Your task to perform on an android device: What's the price of the Vizio TV? Image 0: 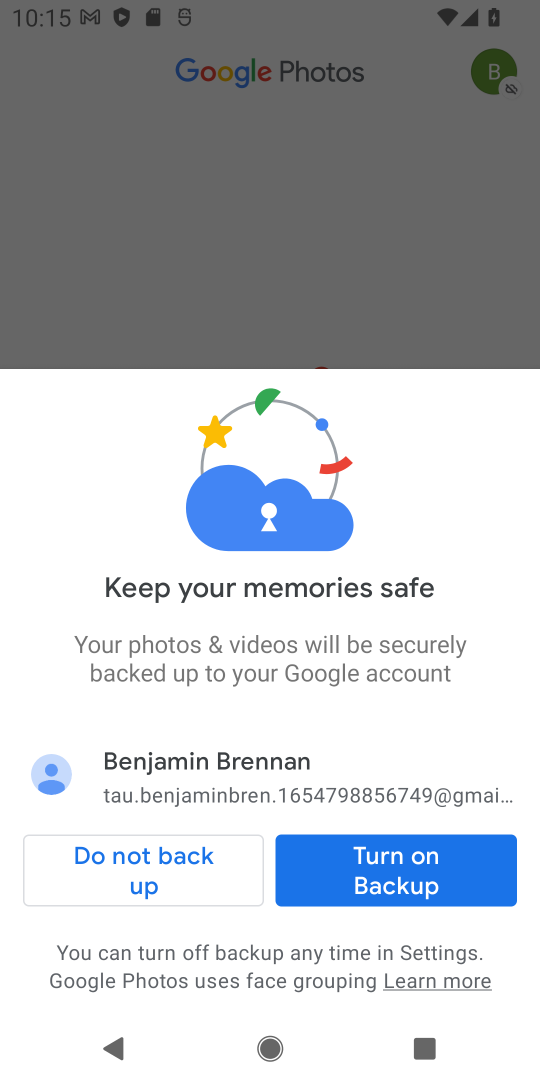
Step 0: press home button
Your task to perform on an android device: What's the price of the Vizio TV? Image 1: 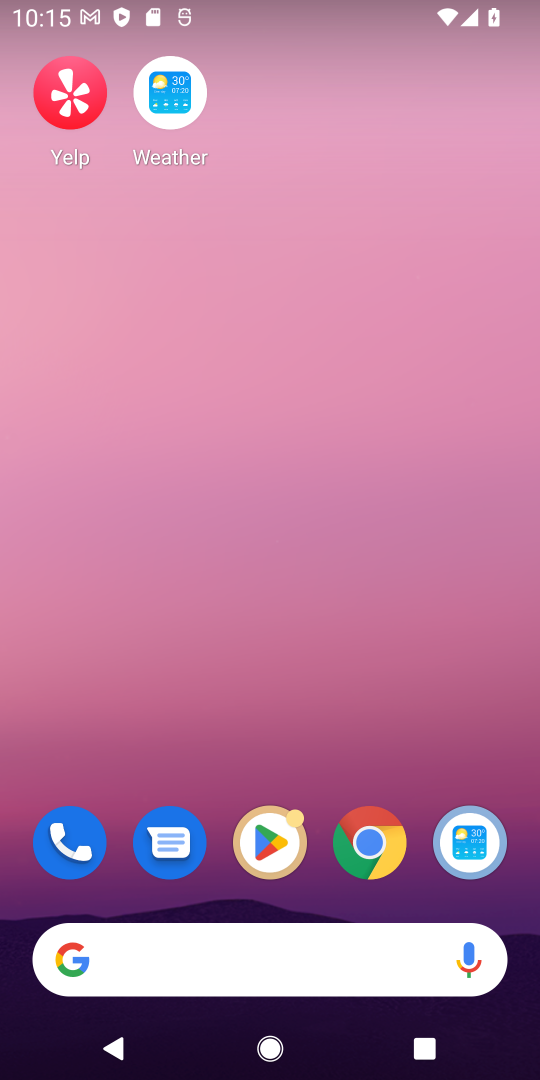
Step 1: click (378, 839)
Your task to perform on an android device: What's the price of the Vizio TV? Image 2: 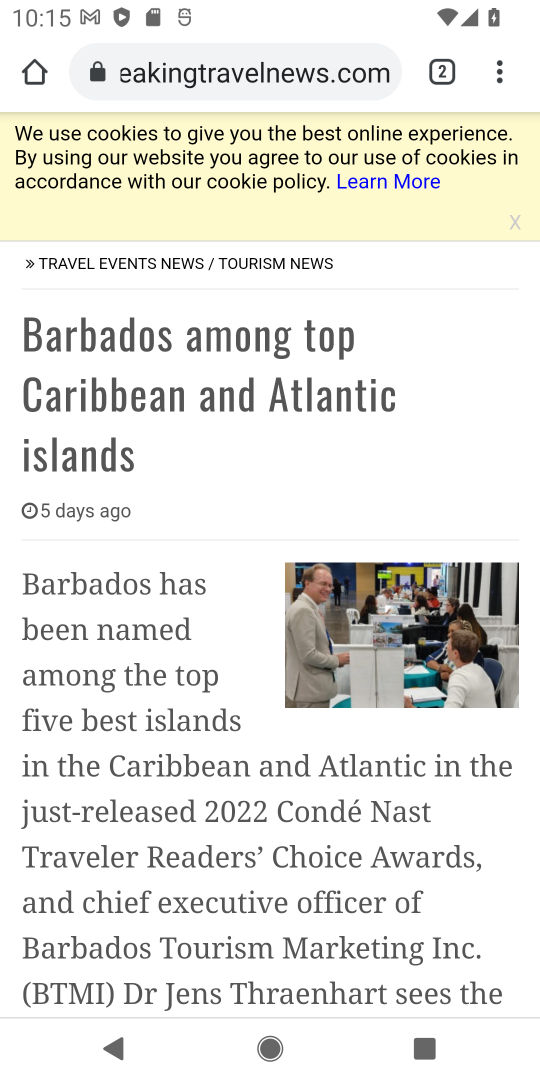
Step 2: click (229, 75)
Your task to perform on an android device: What's the price of the Vizio TV? Image 3: 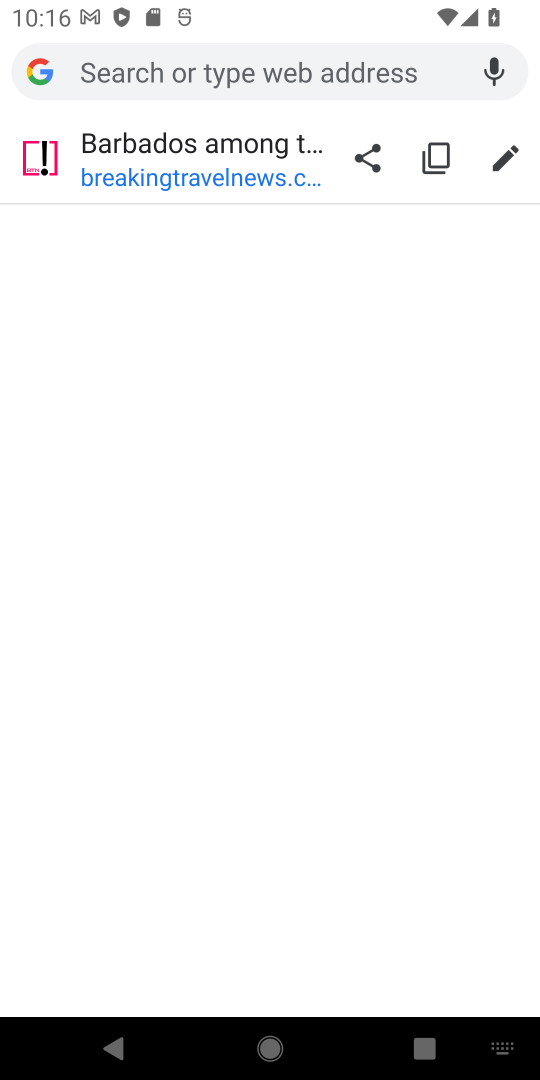
Step 3: type "price of vizio tv "
Your task to perform on an android device: What's the price of the Vizio TV? Image 4: 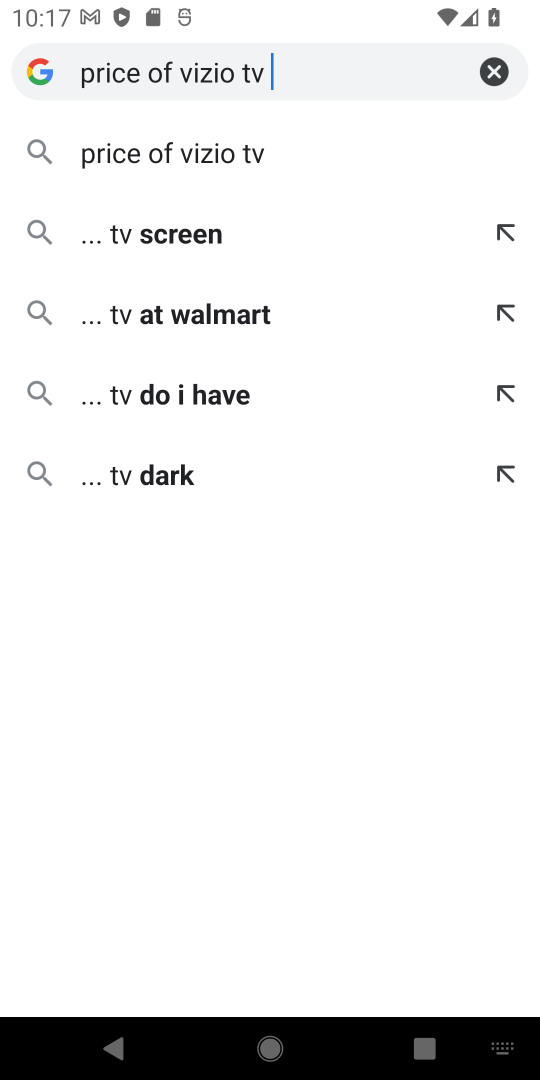
Step 4: click (147, 153)
Your task to perform on an android device: What's the price of the Vizio TV? Image 5: 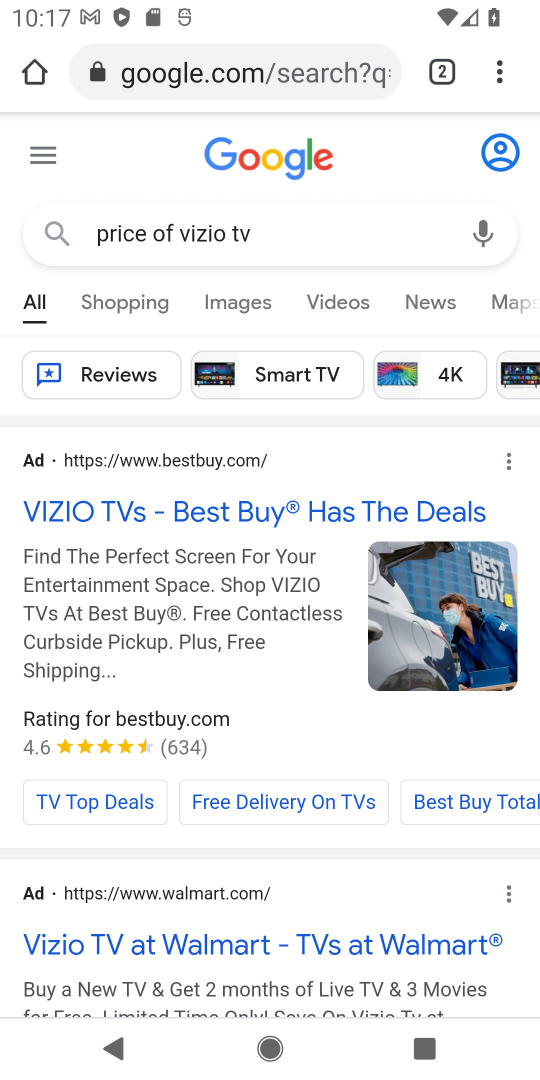
Step 5: click (106, 524)
Your task to perform on an android device: What's the price of the Vizio TV? Image 6: 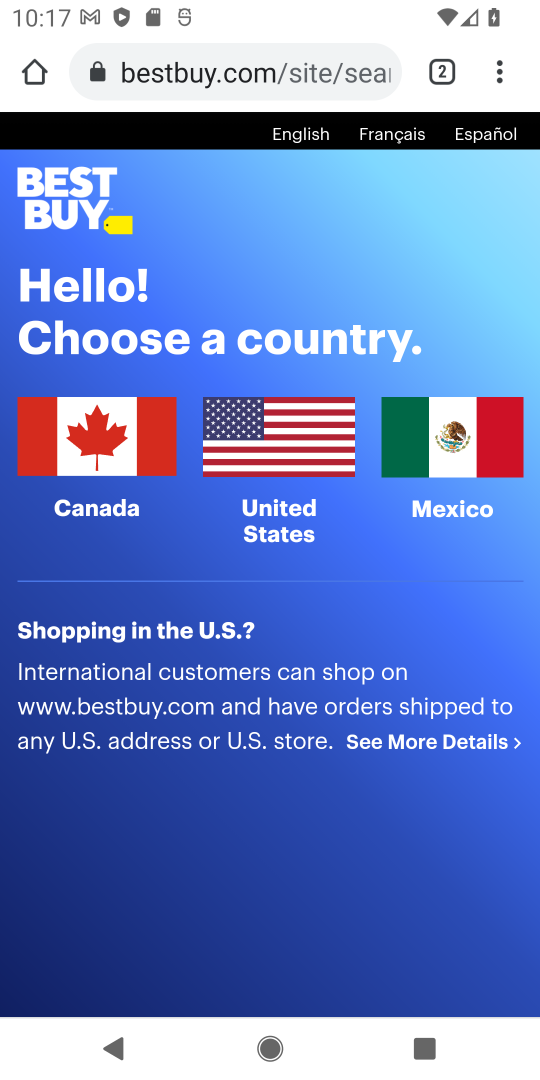
Step 6: drag from (295, 709) to (295, 554)
Your task to perform on an android device: What's the price of the Vizio TV? Image 7: 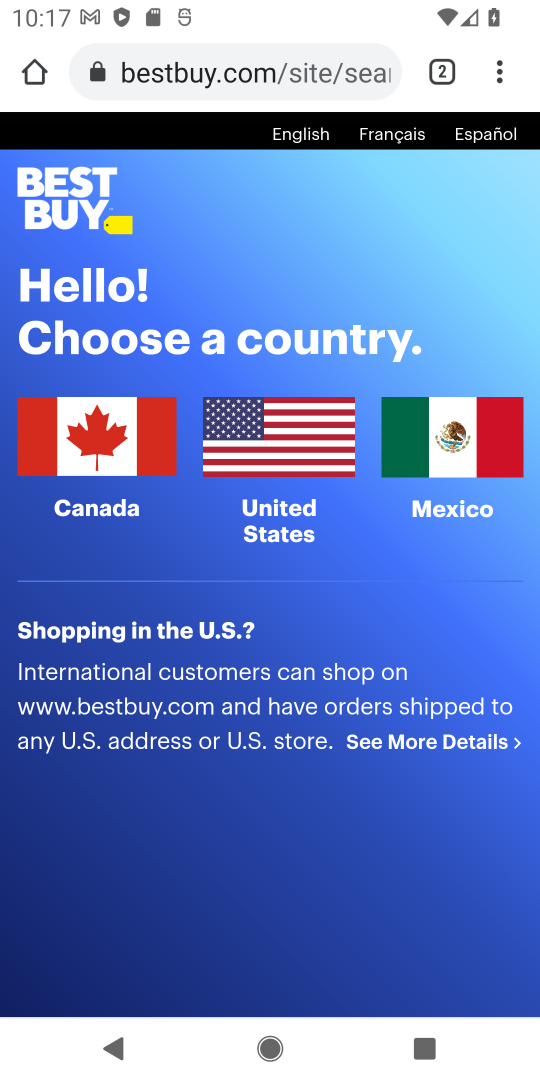
Step 7: click (280, 444)
Your task to perform on an android device: What's the price of the Vizio TV? Image 8: 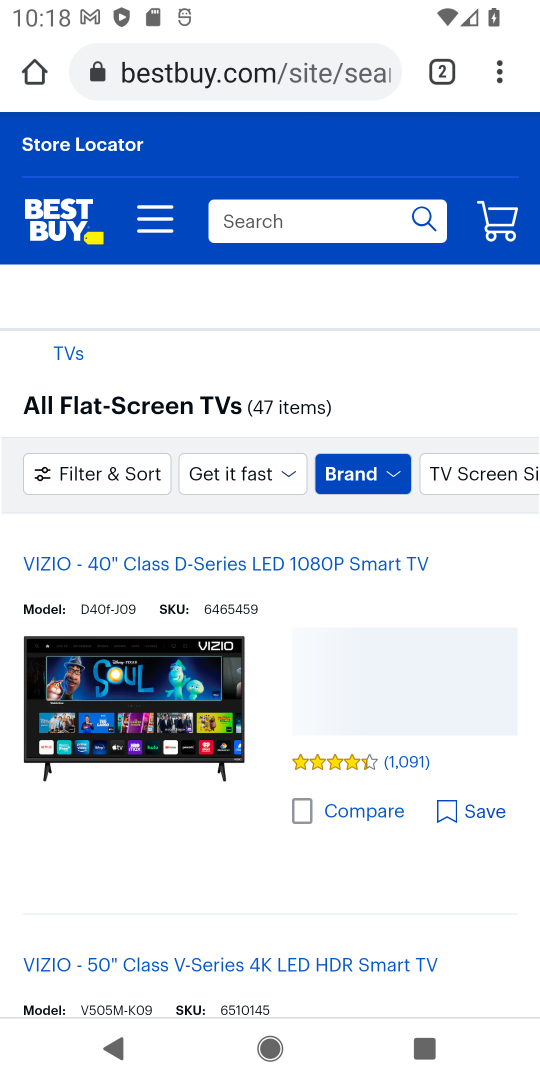
Step 8: task complete